Your task to perform on an android device: Open Google Maps Image 0: 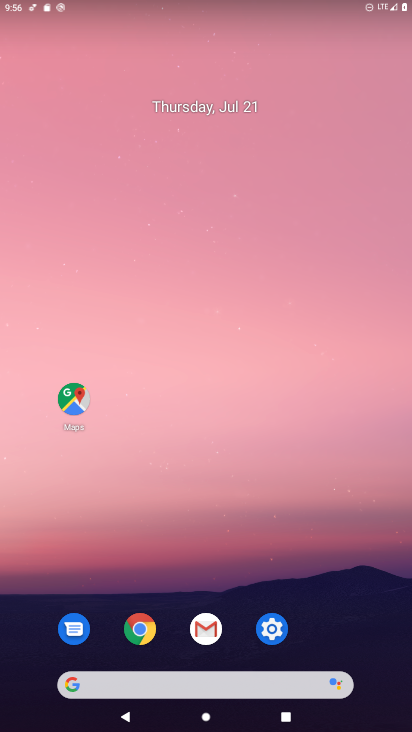
Step 0: click (74, 396)
Your task to perform on an android device: Open Google Maps Image 1: 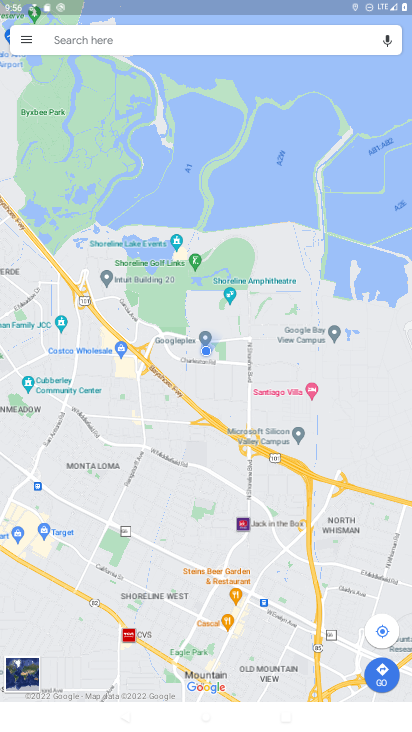
Step 1: click (373, 635)
Your task to perform on an android device: Open Google Maps Image 2: 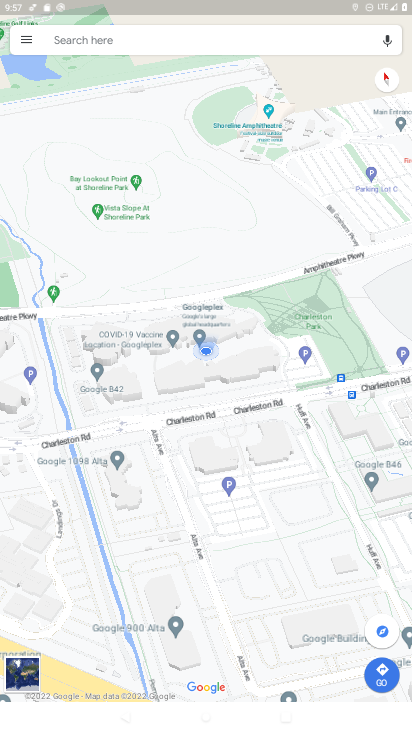
Step 2: task complete